Your task to perform on an android device: install app "Pandora - Music & Podcasts" Image 0: 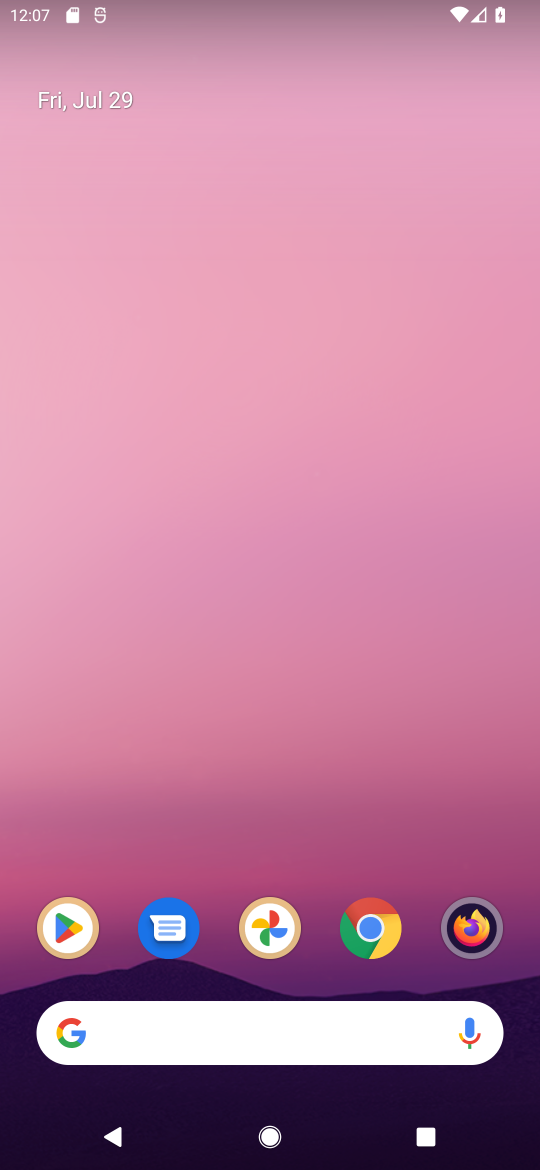
Step 0: drag from (370, 792) to (366, 9)
Your task to perform on an android device: install app "Pandora - Music & Podcasts" Image 1: 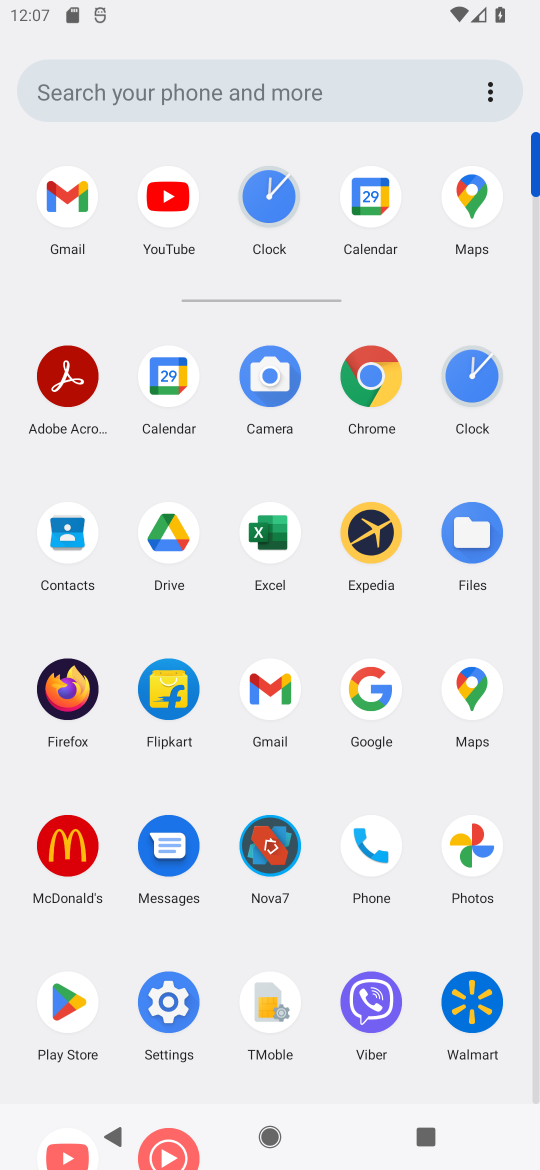
Step 1: click (43, 1010)
Your task to perform on an android device: install app "Pandora - Music & Podcasts" Image 2: 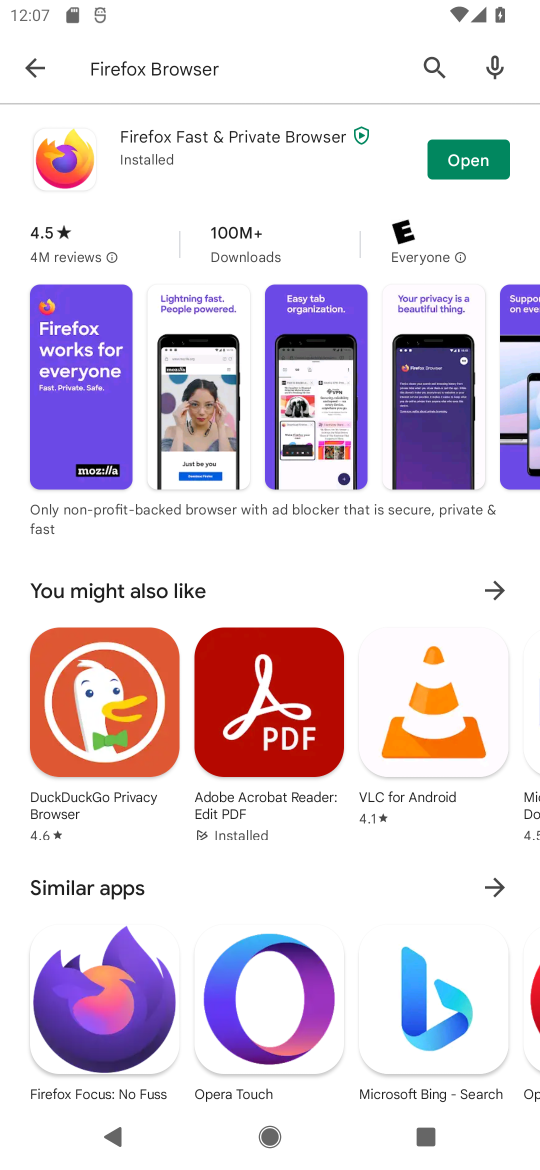
Step 2: click (276, 78)
Your task to perform on an android device: install app "Pandora - Music & Podcasts" Image 3: 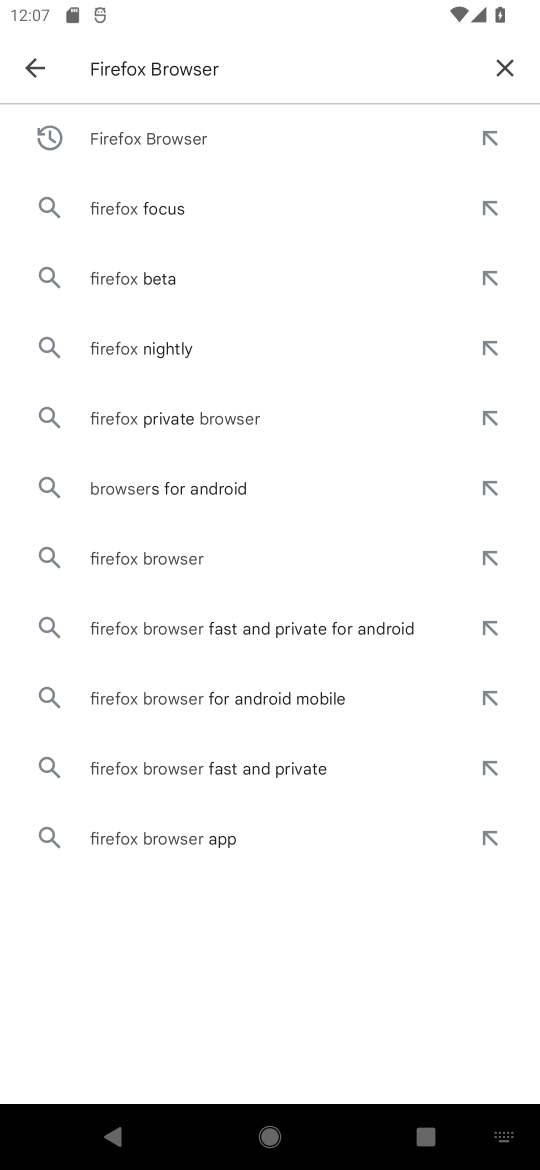
Step 3: click (501, 69)
Your task to perform on an android device: install app "Pandora - Music & Podcasts" Image 4: 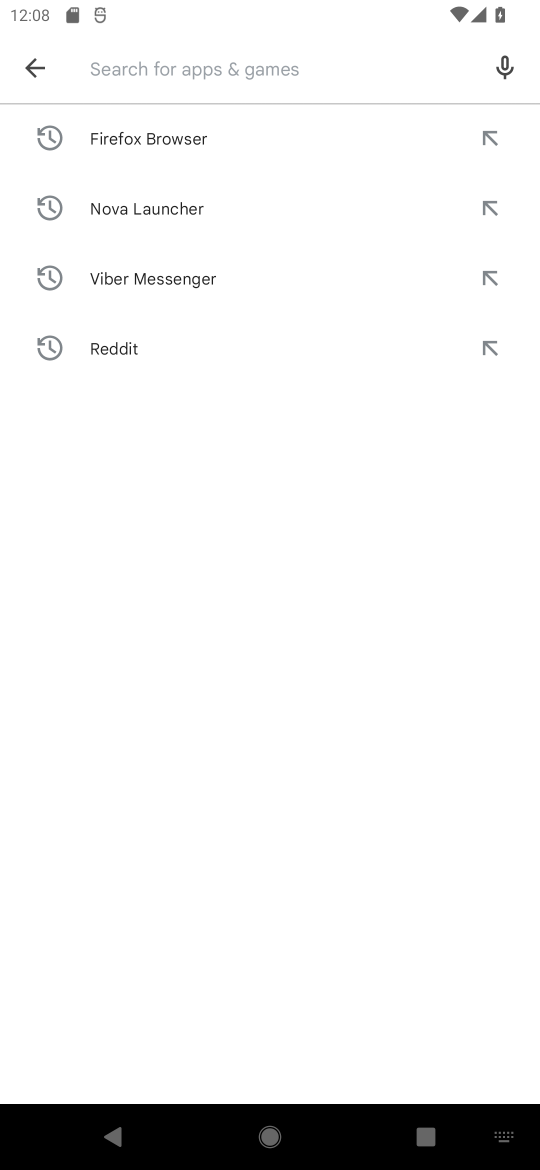
Step 4: type "Pandora - Music & Podcasts"
Your task to perform on an android device: install app "Pandora - Music & Podcasts" Image 5: 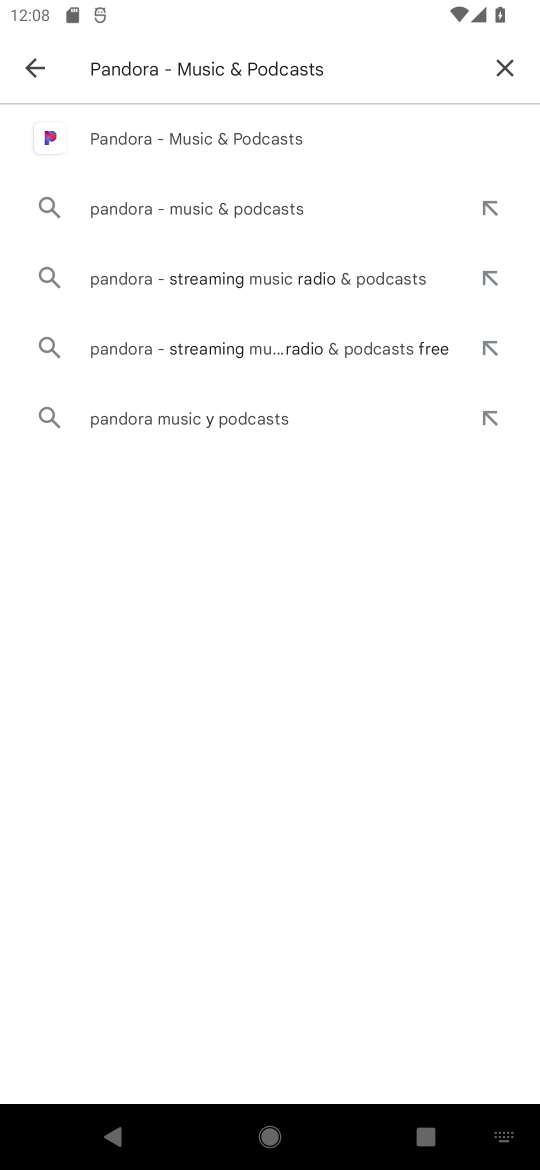
Step 5: press enter
Your task to perform on an android device: install app "Pandora - Music & Podcasts" Image 6: 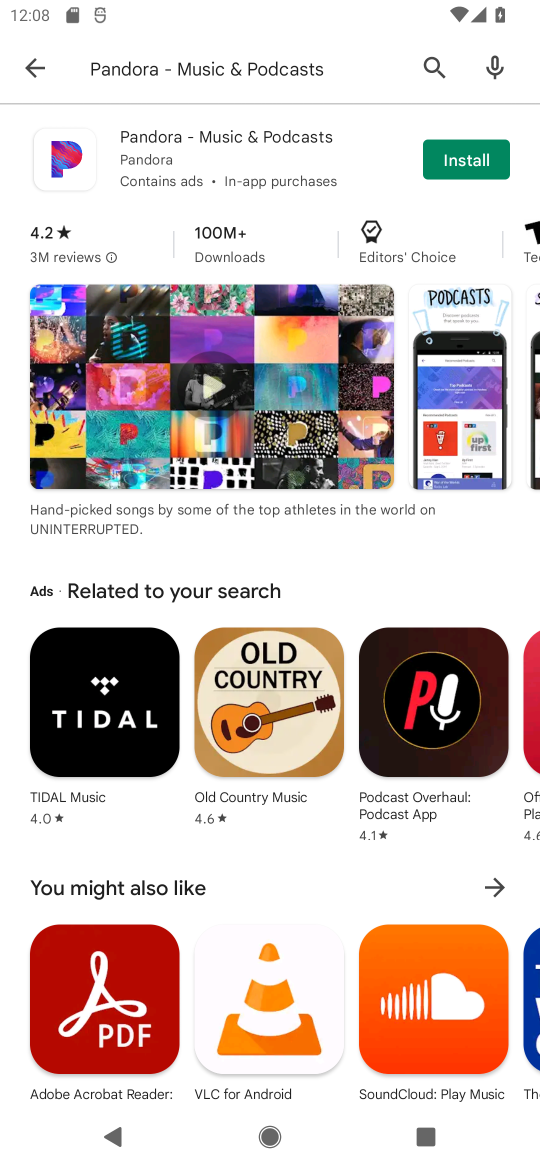
Step 6: click (487, 151)
Your task to perform on an android device: install app "Pandora - Music & Podcasts" Image 7: 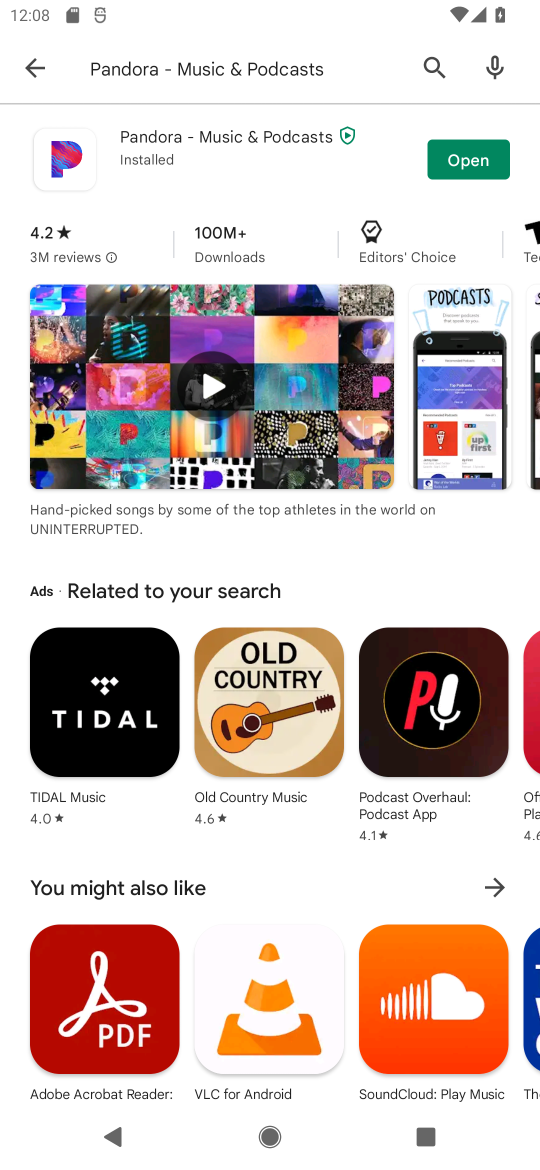
Step 7: task complete